Your task to perform on an android device: open app "Google Home" (install if not already installed) Image 0: 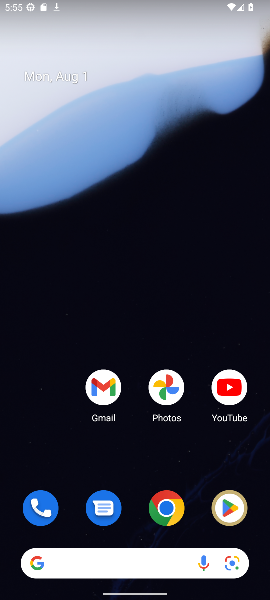
Step 0: click (97, 88)
Your task to perform on an android device: open app "Google Home" (install if not already installed) Image 1: 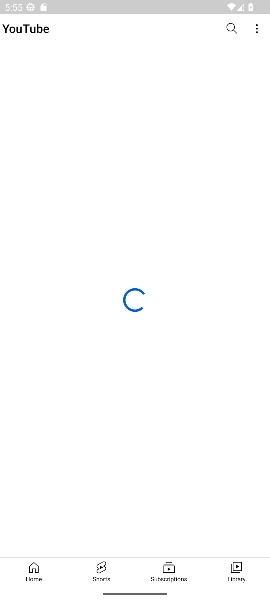
Step 1: press home button
Your task to perform on an android device: open app "Google Home" (install if not already installed) Image 2: 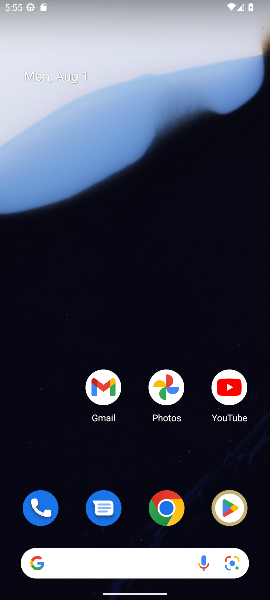
Step 2: drag from (144, 543) to (105, 105)
Your task to perform on an android device: open app "Google Home" (install if not already installed) Image 3: 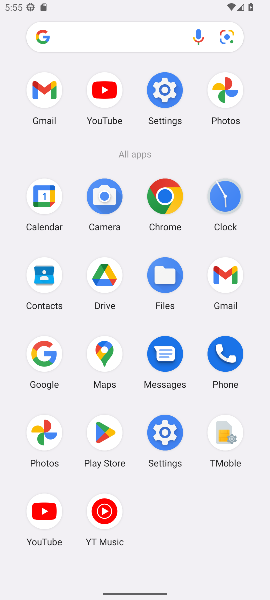
Step 3: click (87, 435)
Your task to perform on an android device: open app "Google Home" (install if not already installed) Image 4: 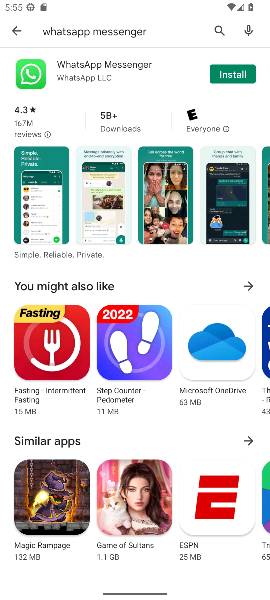
Step 4: click (12, 34)
Your task to perform on an android device: open app "Google Home" (install if not already installed) Image 5: 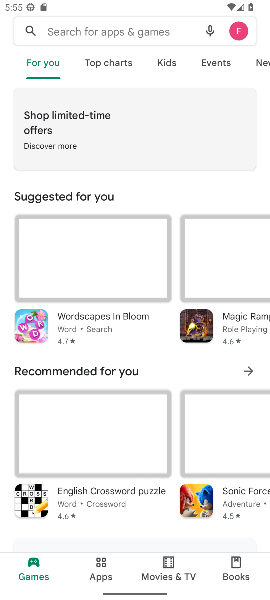
Step 5: click (61, 30)
Your task to perform on an android device: open app "Google Home" (install if not already installed) Image 6: 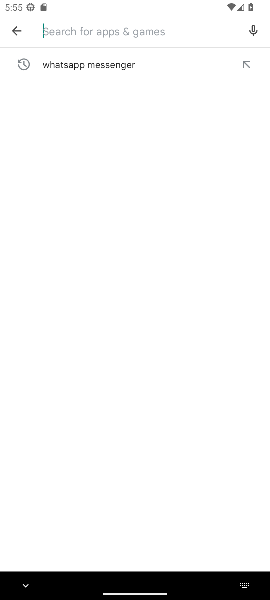
Step 6: type "Google Home"
Your task to perform on an android device: open app "Google Home" (install if not already installed) Image 7: 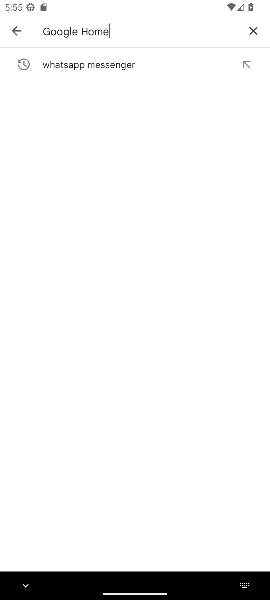
Step 7: type ""
Your task to perform on an android device: open app "Google Home" (install if not already installed) Image 8: 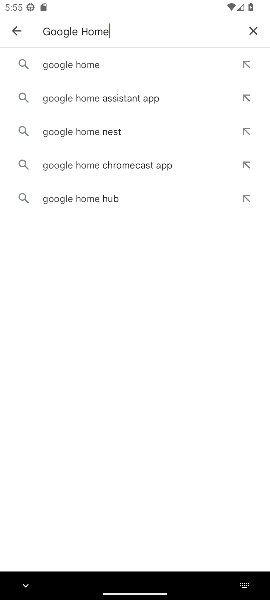
Step 8: click (89, 74)
Your task to perform on an android device: open app "Google Home" (install if not already installed) Image 9: 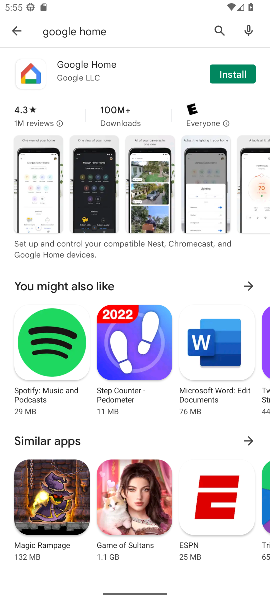
Step 9: click (241, 77)
Your task to perform on an android device: open app "Google Home" (install if not already installed) Image 10: 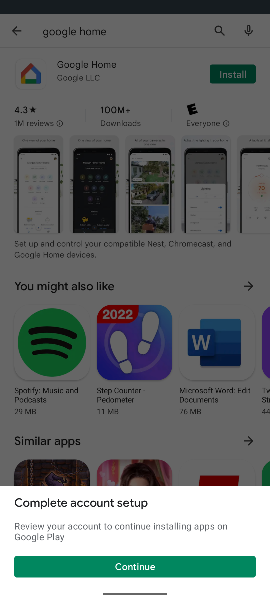
Step 10: click (90, 570)
Your task to perform on an android device: open app "Google Home" (install if not already installed) Image 11: 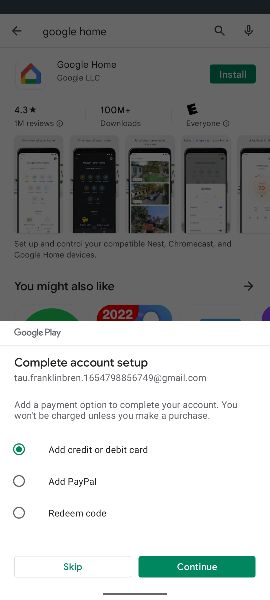
Step 11: drag from (216, 570) to (96, 374)
Your task to perform on an android device: open app "Google Home" (install if not already installed) Image 12: 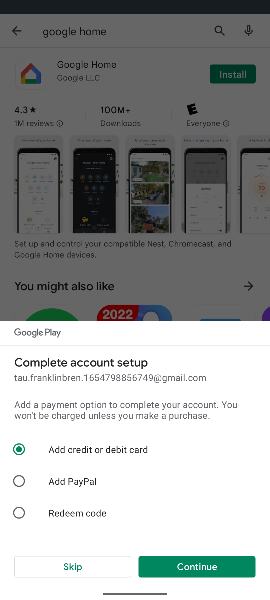
Step 12: click (82, 567)
Your task to perform on an android device: open app "Google Home" (install if not already installed) Image 13: 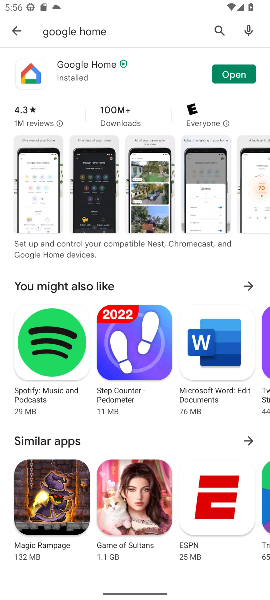
Step 13: click (232, 70)
Your task to perform on an android device: open app "Google Home" (install if not already installed) Image 14: 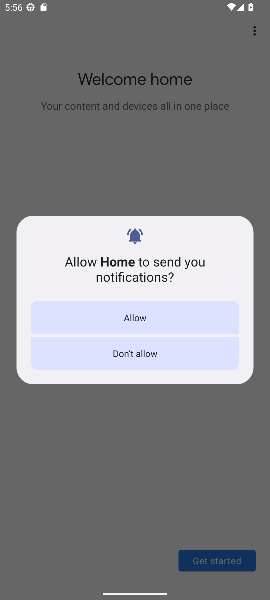
Step 14: click (137, 309)
Your task to perform on an android device: open app "Google Home" (install if not already installed) Image 15: 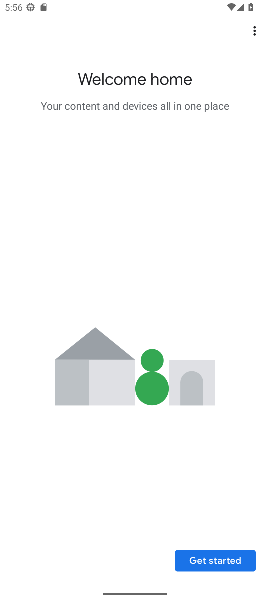
Step 15: task complete